Your task to perform on an android device: What's on my calendar today? Image 0: 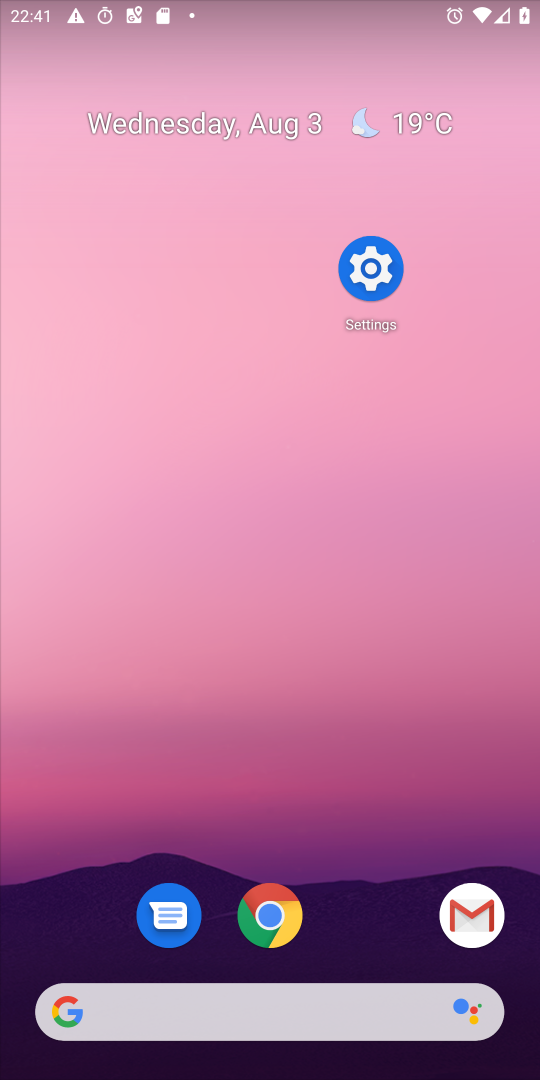
Step 0: drag from (311, 1045) to (203, 249)
Your task to perform on an android device: What's on my calendar today? Image 1: 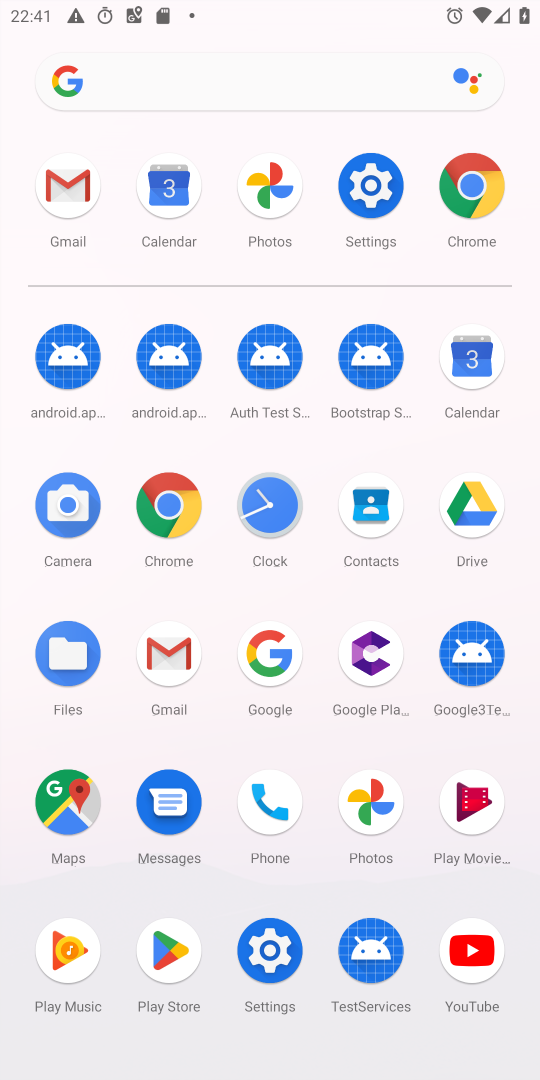
Step 1: click (465, 372)
Your task to perform on an android device: What's on my calendar today? Image 2: 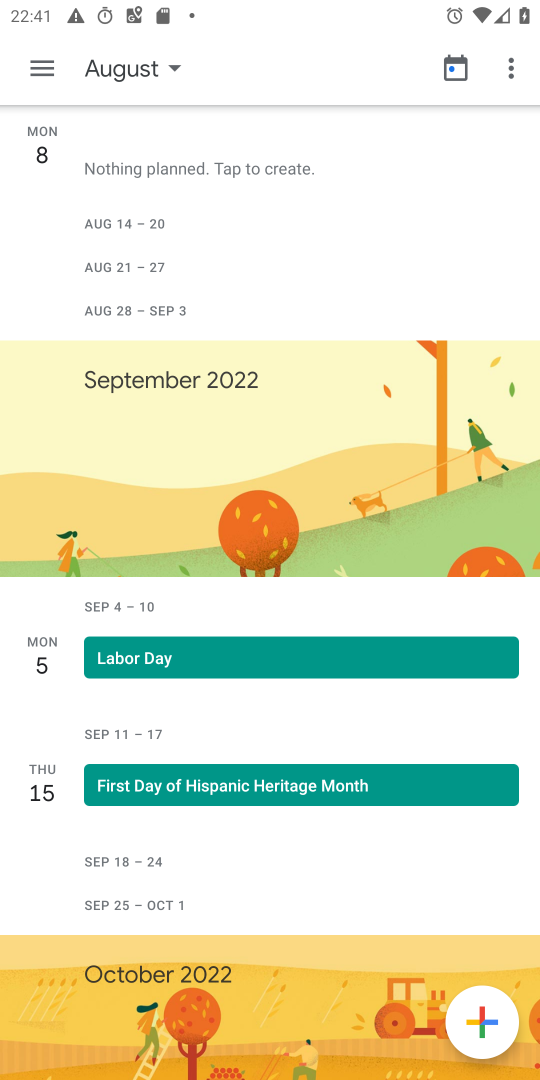
Step 2: click (35, 66)
Your task to perform on an android device: What's on my calendar today? Image 3: 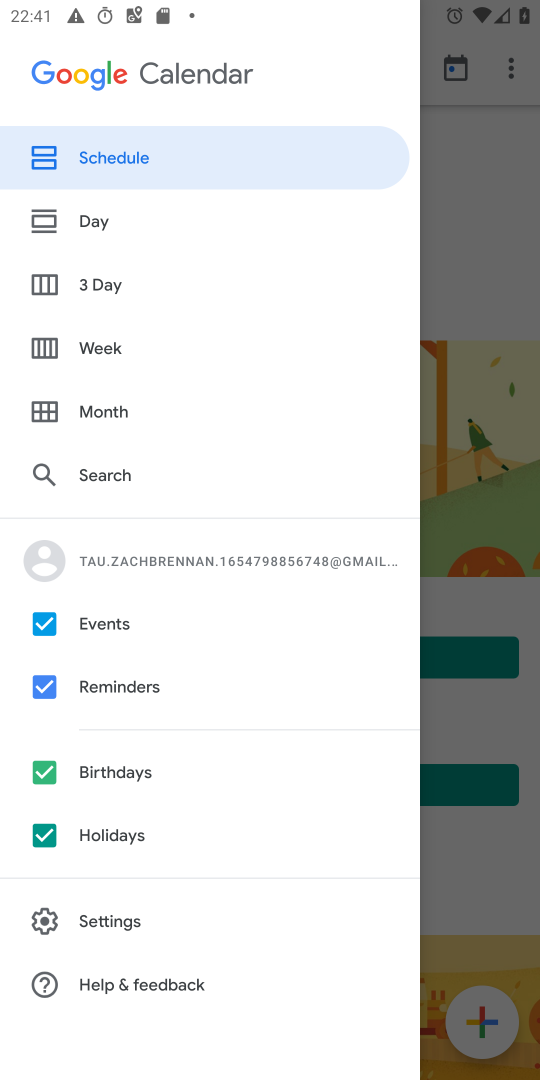
Step 3: click (105, 409)
Your task to perform on an android device: What's on my calendar today? Image 4: 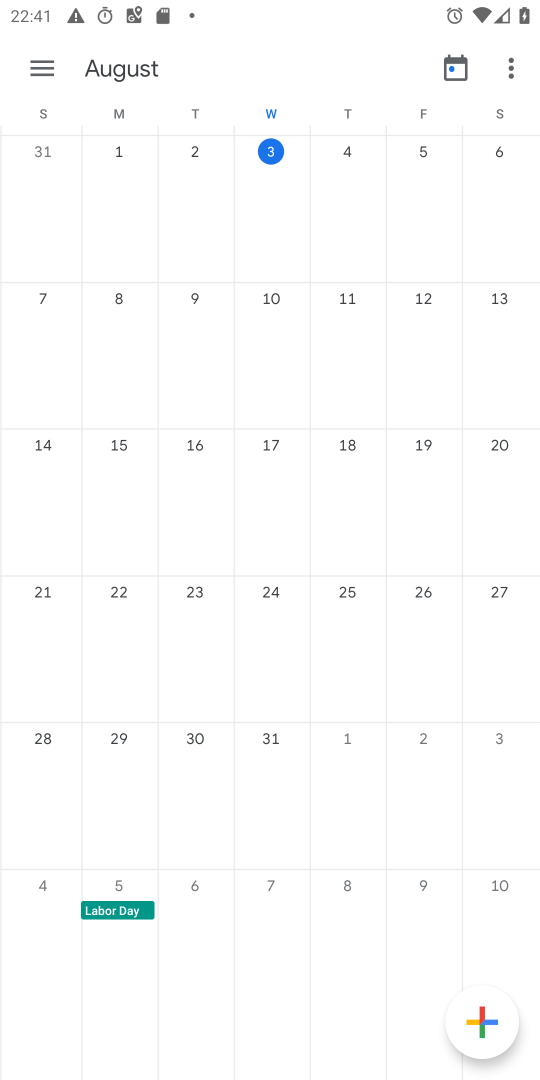
Step 4: click (254, 213)
Your task to perform on an android device: What's on my calendar today? Image 5: 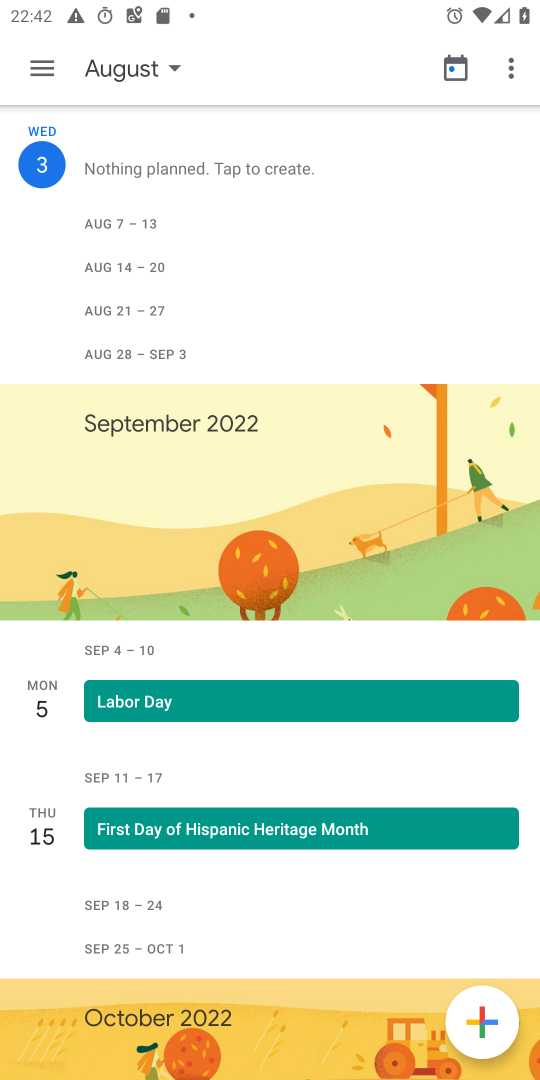
Step 5: task complete